Your task to perform on an android device: turn on airplane mode Image 0: 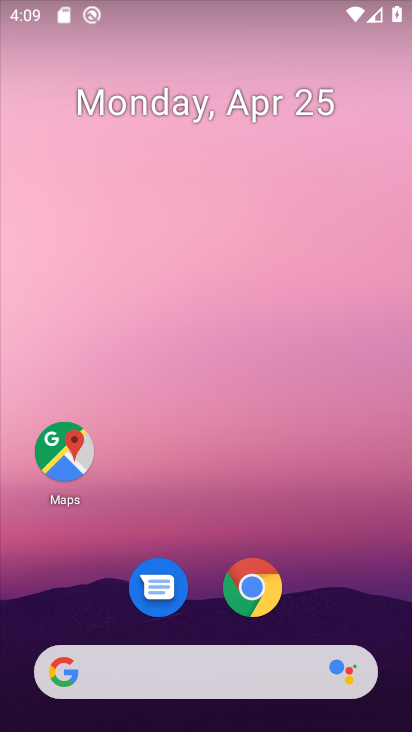
Step 0: drag from (343, 587) to (232, 184)
Your task to perform on an android device: turn on airplane mode Image 1: 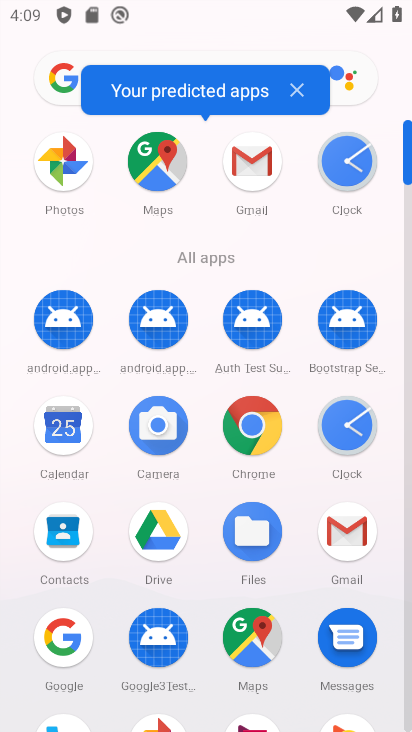
Step 1: click (404, 657)
Your task to perform on an android device: turn on airplane mode Image 2: 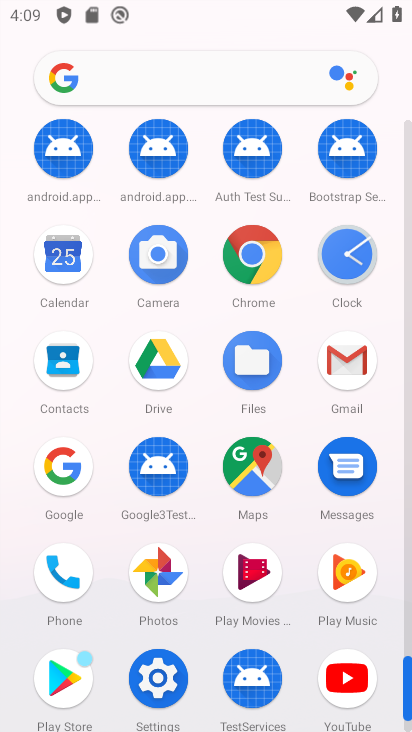
Step 2: click (166, 668)
Your task to perform on an android device: turn on airplane mode Image 3: 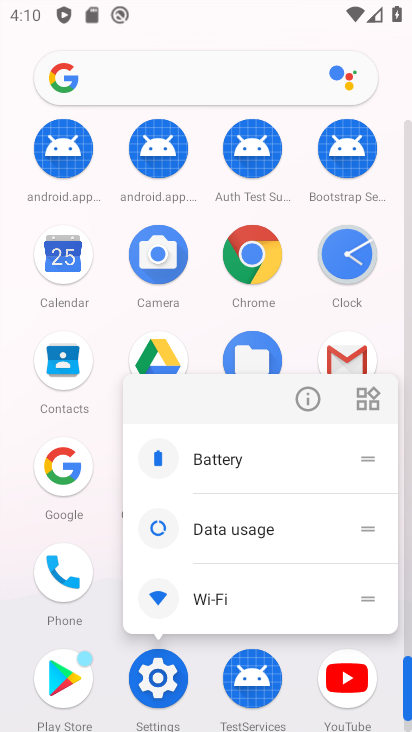
Step 3: click (166, 668)
Your task to perform on an android device: turn on airplane mode Image 4: 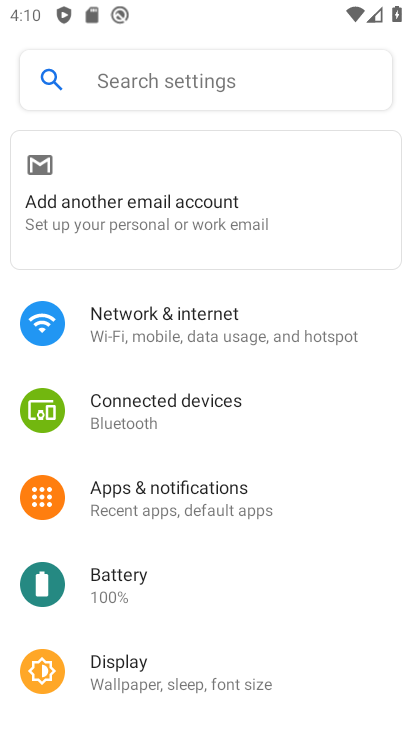
Step 4: click (223, 326)
Your task to perform on an android device: turn on airplane mode Image 5: 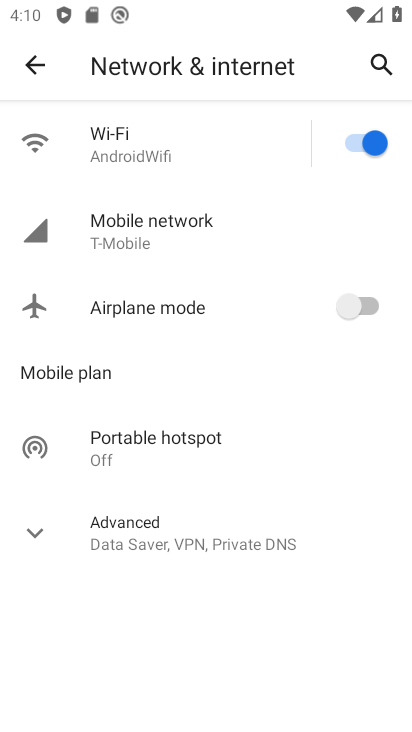
Step 5: click (337, 319)
Your task to perform on an android device: turn on airplane mode Image 6: 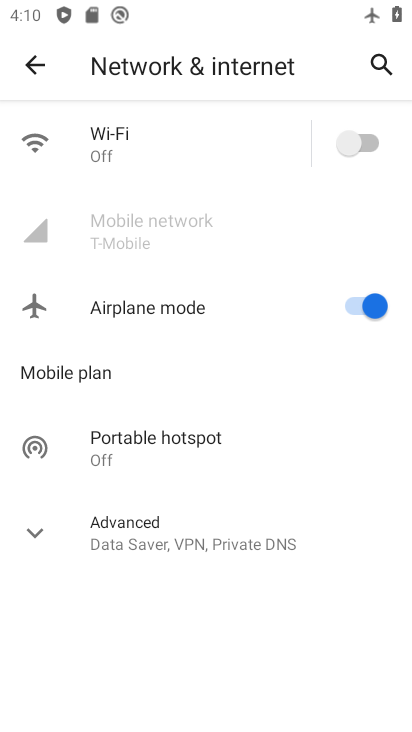
Step 6: task complete